Your task to perform on an android device: Is it going to rain this weekend? Image 0: 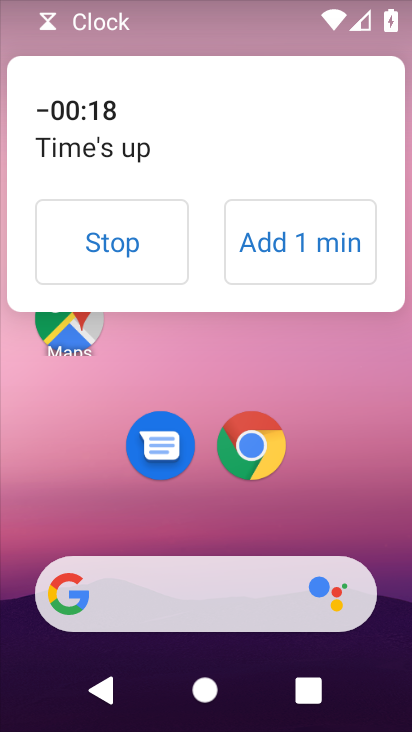
Step 0: click (142, 241)
Your task to perform on an android device: Is it going to rain this weekend? Image 1: 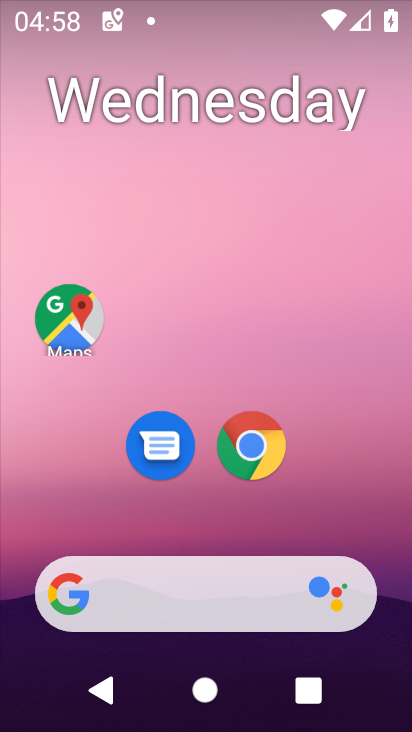
Step 1: click (191, 588)
Your task to perform on an android device: Is it going to rain this weekend? Image 2: 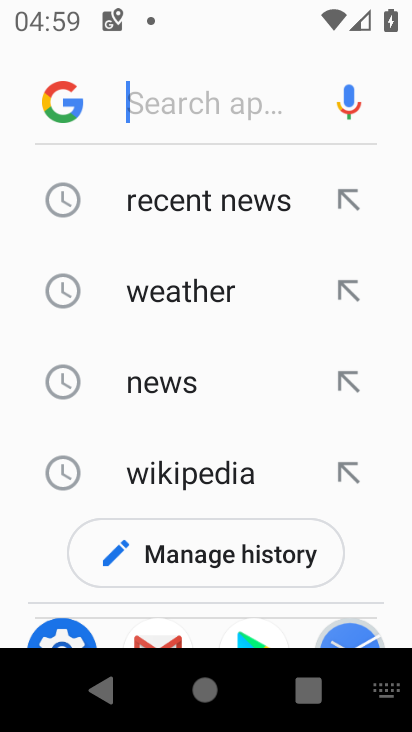
Step 2: click (209, 276)
Your task to perform on an android device: Is it going to rain this weekend? Image 3: 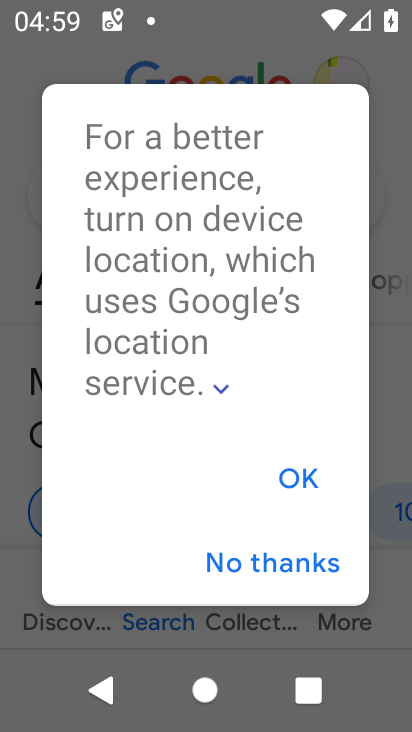
Step 3: click (308, 484)
Your task to perform on an android device: Is it going to rain this weekend? Image 4: 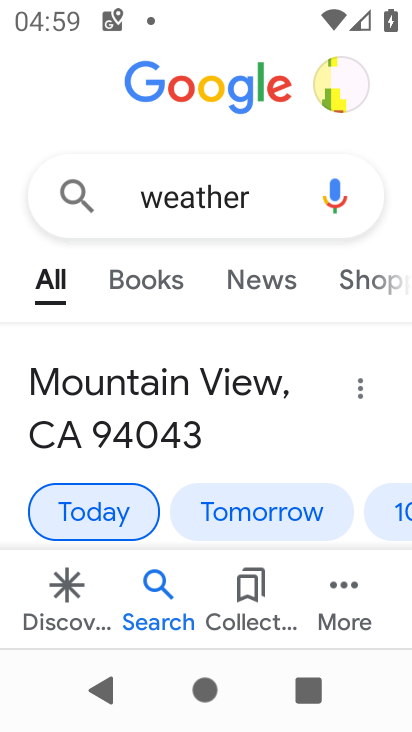
Step 4: drag from (182, 449) to (233, 96)
Your task to perform on an android device: Is it going to rain this weekend? Image 5: 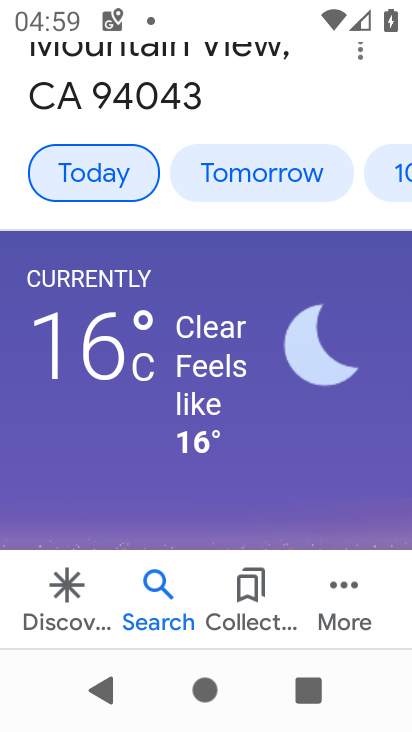
Step 5: click (400, 169)
Your task to perform on an android device: Is it going to rain this weekend? Image 6: 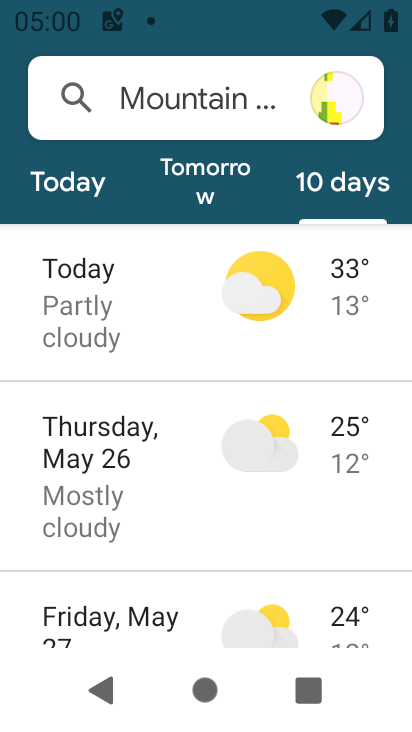
Step 6: task complete